Your task to perform on an android device: Open Yahoo.com Image 0: 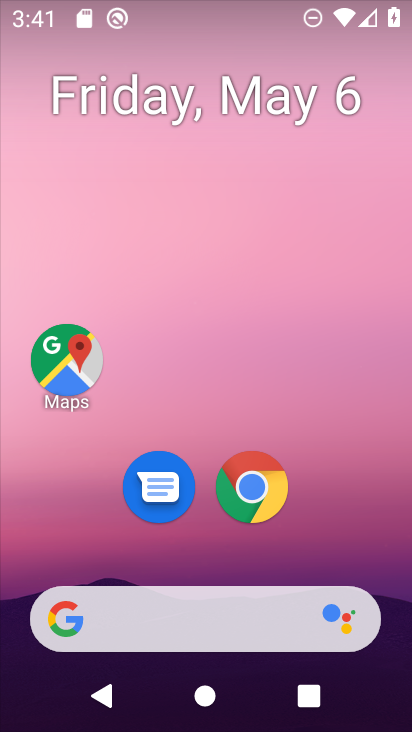
Step 0: click (250, 493)
Your task to perform on an android device: Open Yahoo.com Image 1: 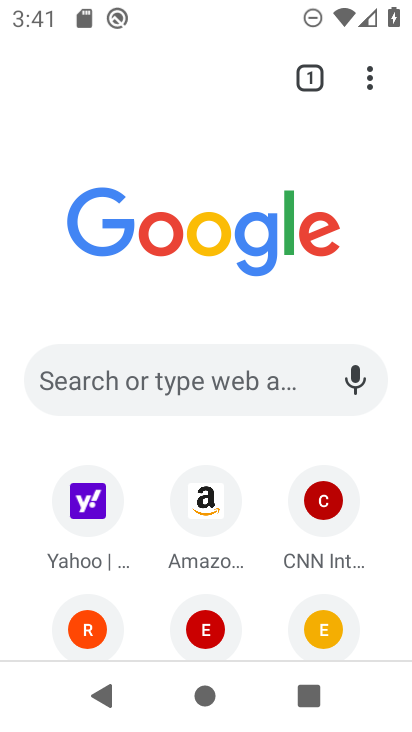
Step 1: click (70, 520)
Your task to perform on an android device: Open Yahoo.com Image 2: 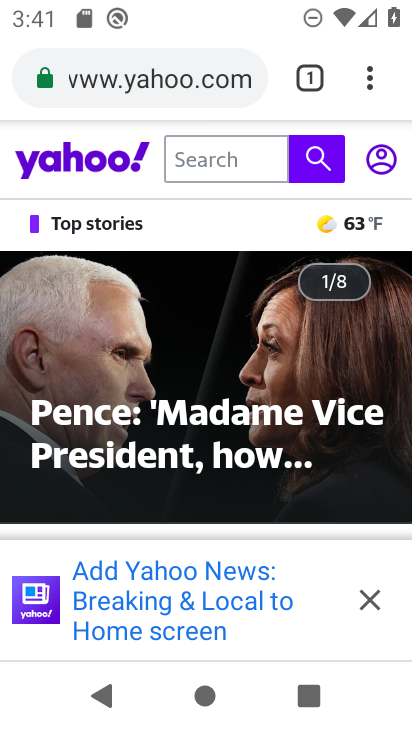
Step 2: task complete